Your task to perform on an android device: What's on my calendar today? Image 0: 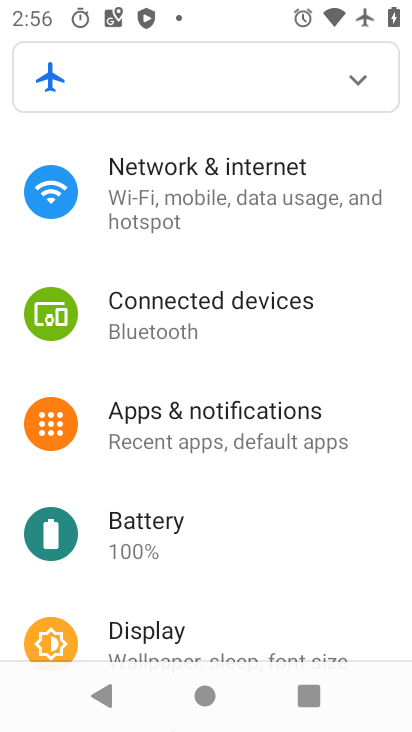
Step 0: press home button
Your task to perform on an android device: What's on my calendar today? Image 1: 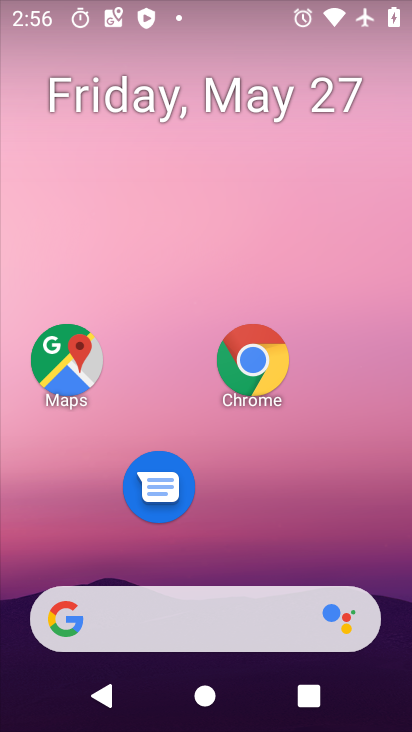
Step 1: drag from (312, 520) to (319, 31)
Your task to perform on an android device: What's on my calendar today? Image 2: 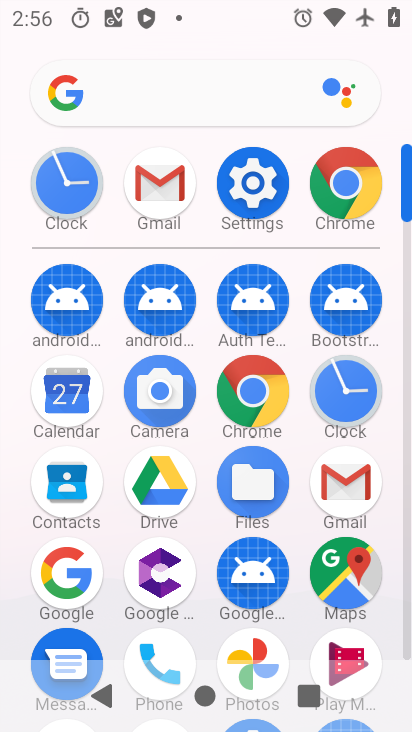
Step 2: click (77, 398)
Your task to perform on an android device: What's on my calendar today? Image 3: 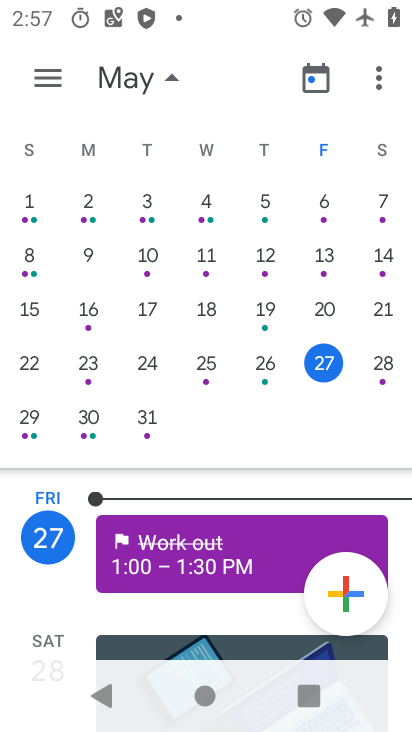
Step 3: task complete